Your task to perform on an android device: set an alarm Image 0: 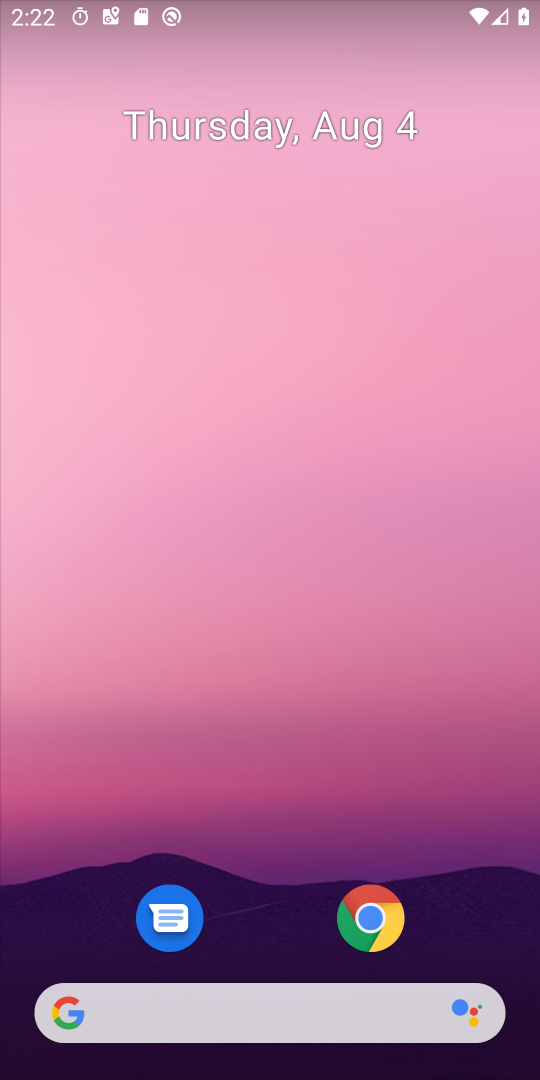
Step 0: drag from (256, 464) to (248, 396)
Your task to perform on an android device: set an alarm Image 1: 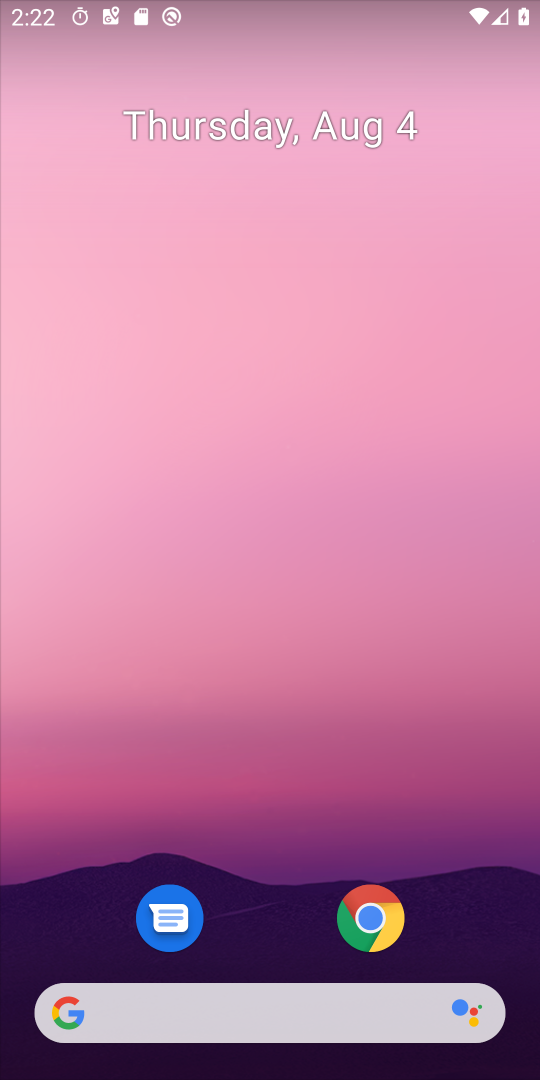
Step 1: drag from (244, 913) to (258, 421)
Your task to perform on an android device: set an alarm Image 2: 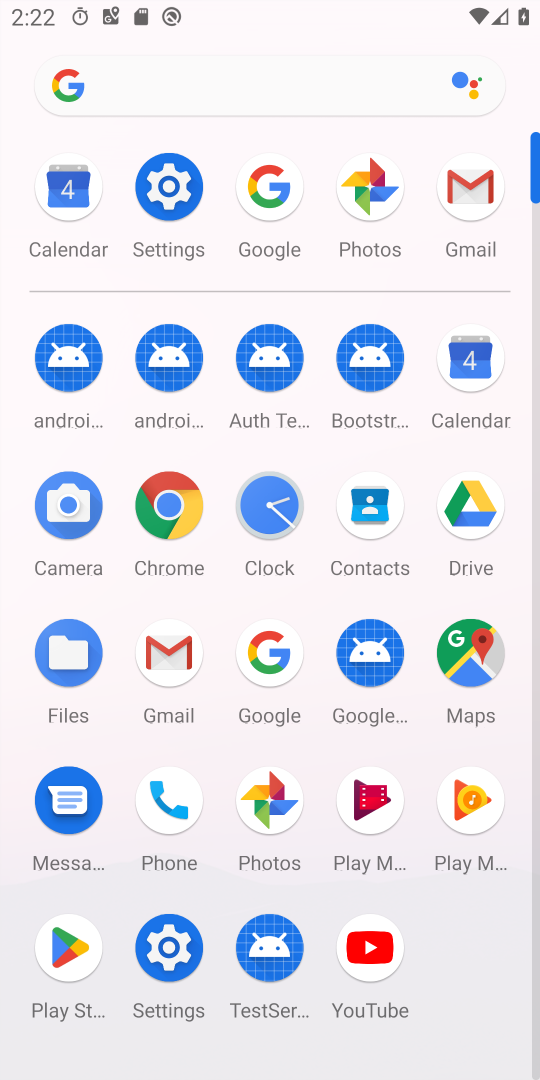
Step 2: click (263, 511)
Your task to perform on an android device: set an alarm Image 3: 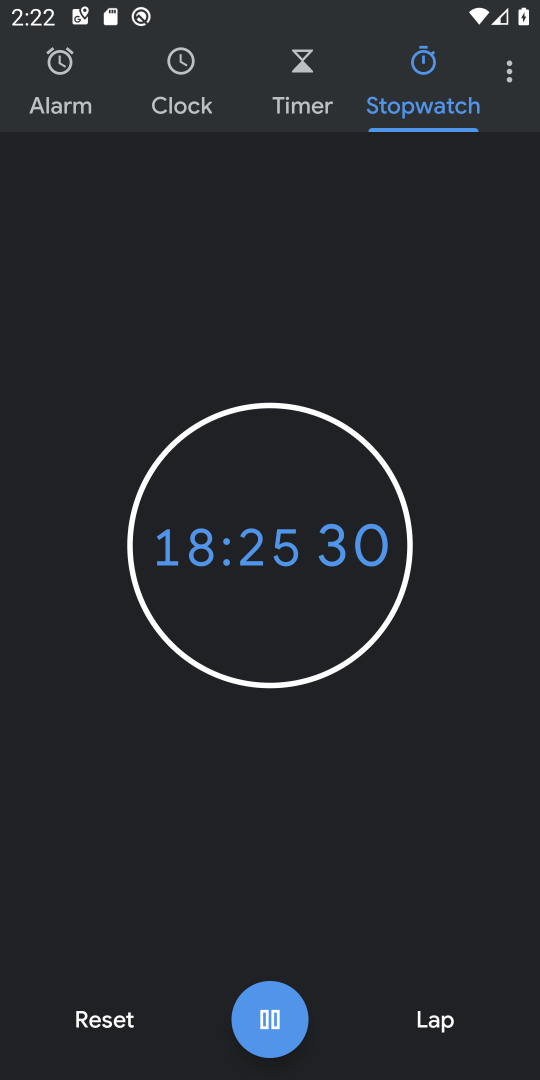
Step 3: click (77, 107)
Your task to perform on an android device: set an alarm Image 4: 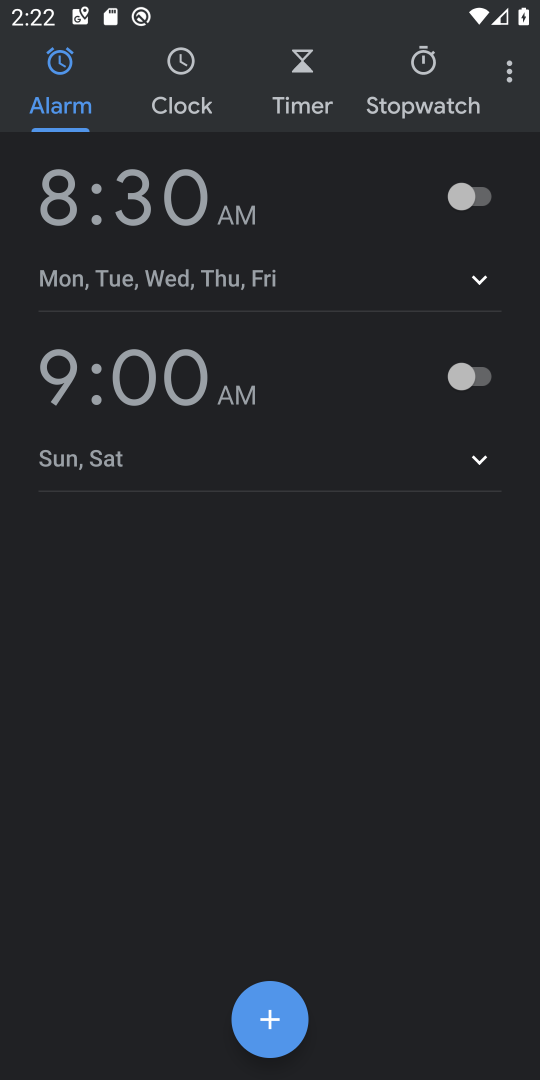
Step 4: click (455, 192)
Your task to perform on an android device: set an alarm Image 5: 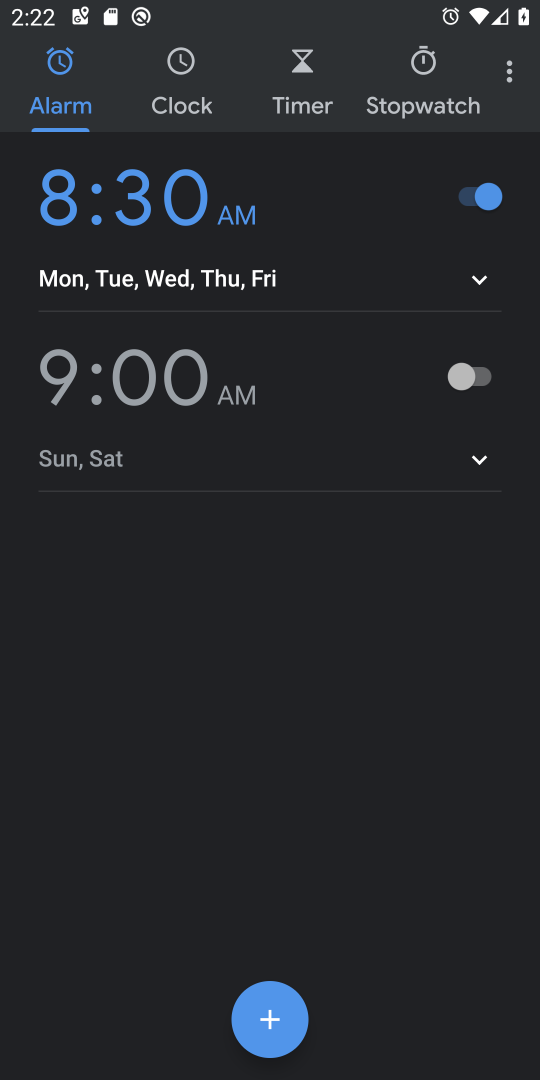
Step 5: task complete